Your task to perform on an android device: change the clock style Image 0: 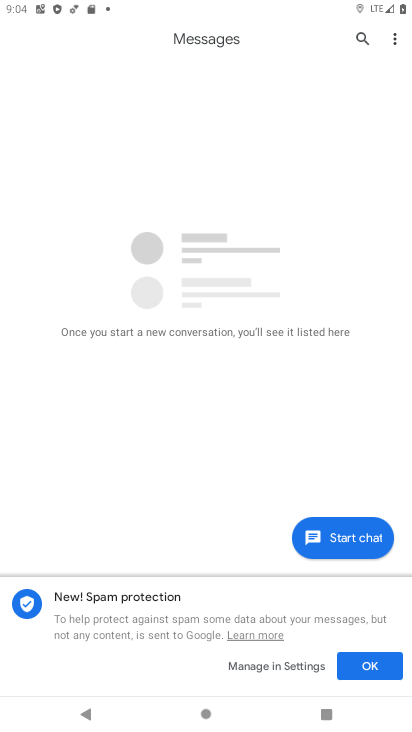
Step 0: press home button
Your task to perform on an android device: change the clock style Image 1: 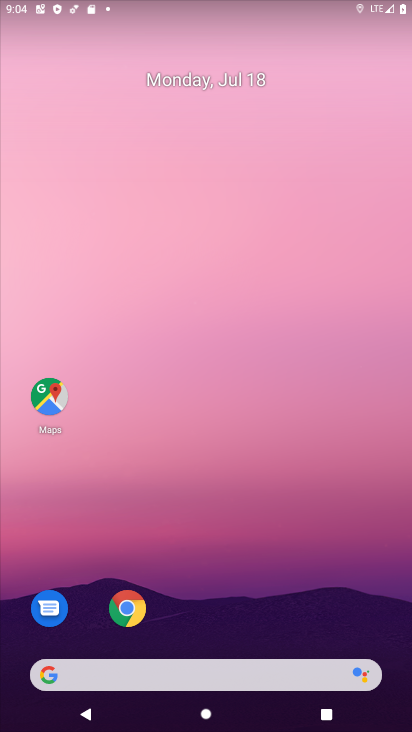
Step 1: click (280, 38)
Your task to perform on an android device: change the clock style Image 2: 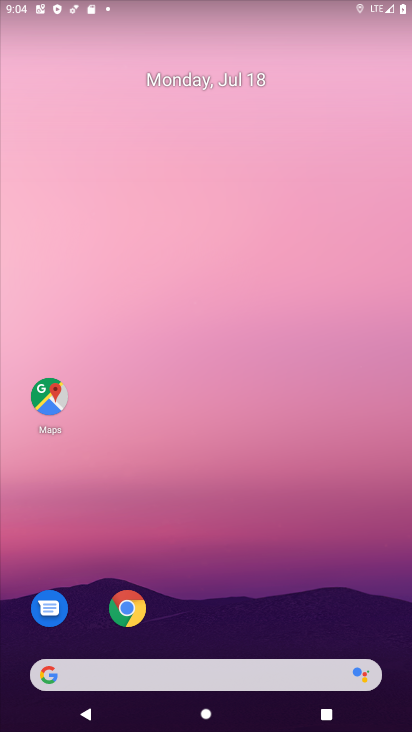
Step 2: drag from (160, 425) to (261, 105)
Your task to perform on an android device: change the clock style Image 3: 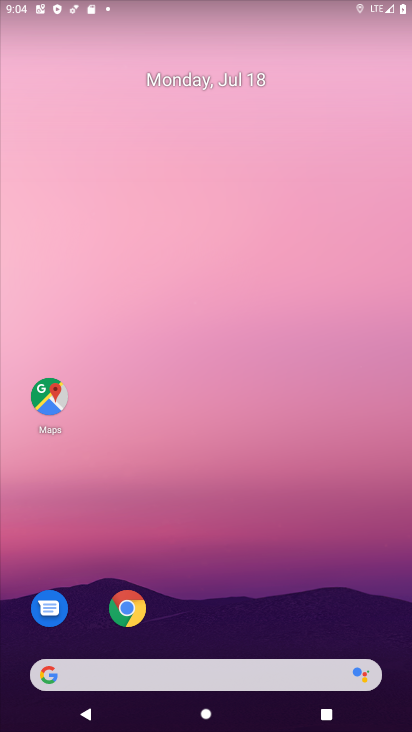
Step 3: drag from (156, 421) to (279, 17)
Your task to perform on an android device: change the clock style Image 4: 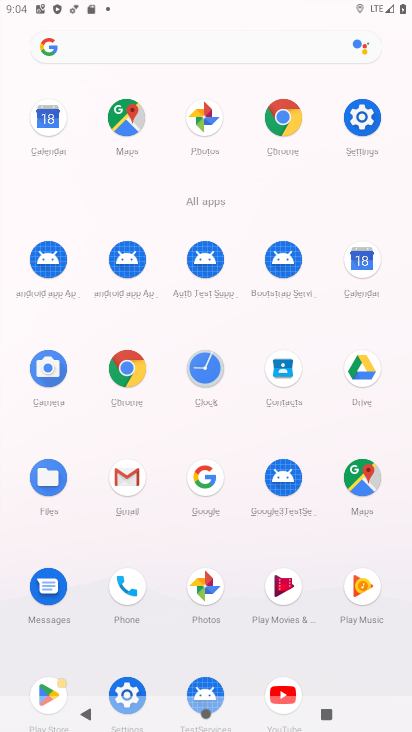
Step 4: click (207, 385)
Your task to perform on an android device: change the clock style Image 5: 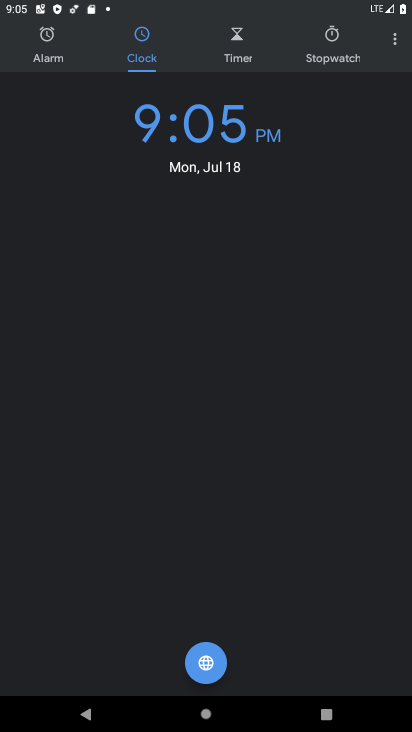
Step 5: click (394, 40)
Your task to perform on an android device: change the clock style Image 6: 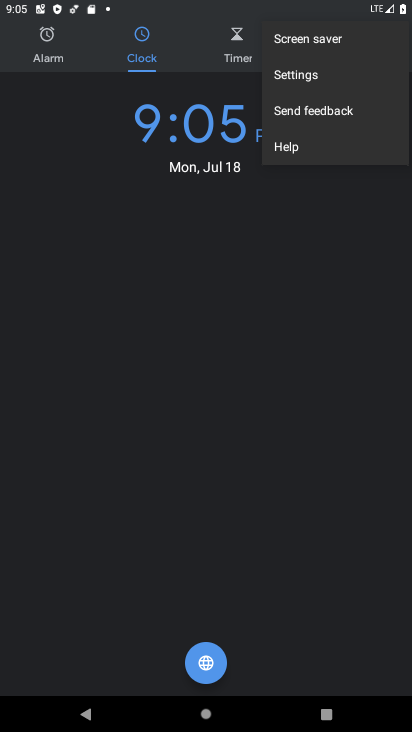
Step 6: click (298, 68)
Your task to perform on an android device: change the clock style Image 7: 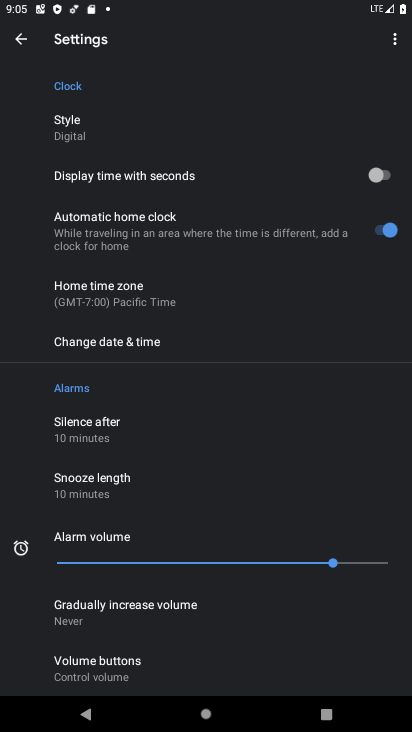
Step 7: click (113, 117)
Your task to perform on an android device: change the clock style Image 8: 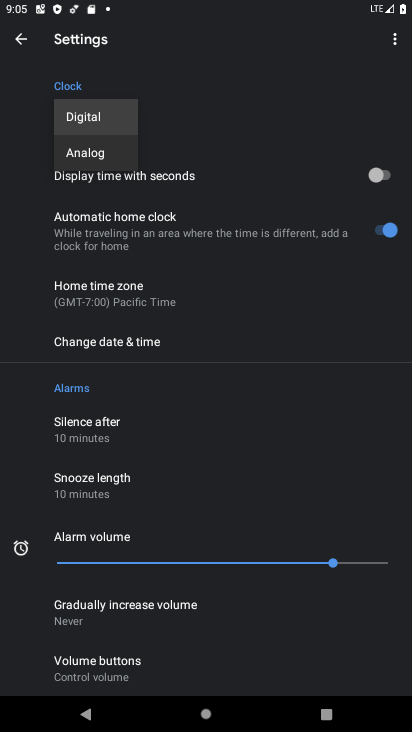
Step 8: click (95, 152)
Your task to perform on an android device: change the clock style Image 9: 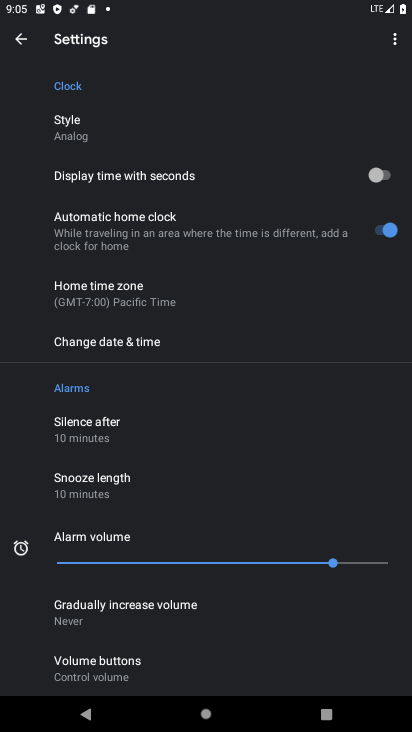
Step 9: task complete